Your task to perform on an android device: Play the new Katy Perry video on YouTube Image 0: 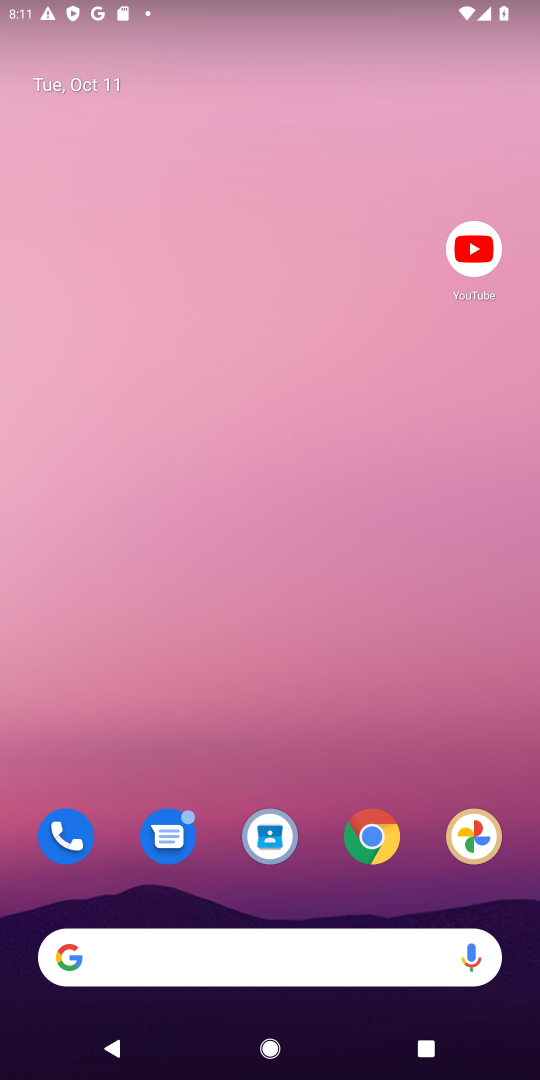
Step 0: click (468, 245)
Your task to perform on an android device: Play the new Katy Perry video on YouTube Image 1: 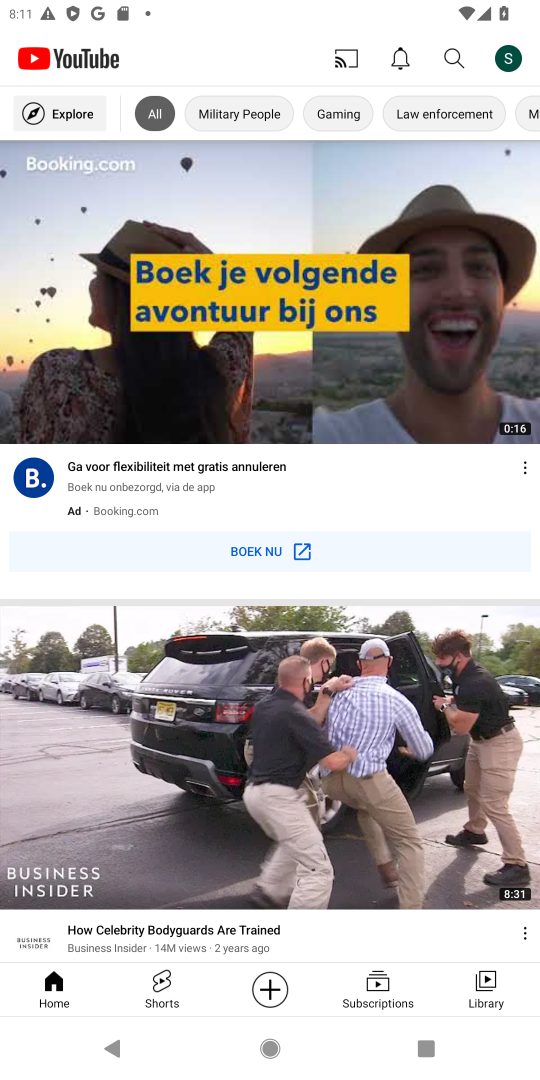
Step 1: click (458, 52)
Your task to perform on an android device: Play the new Katy Perry video on YouTube Image 2: 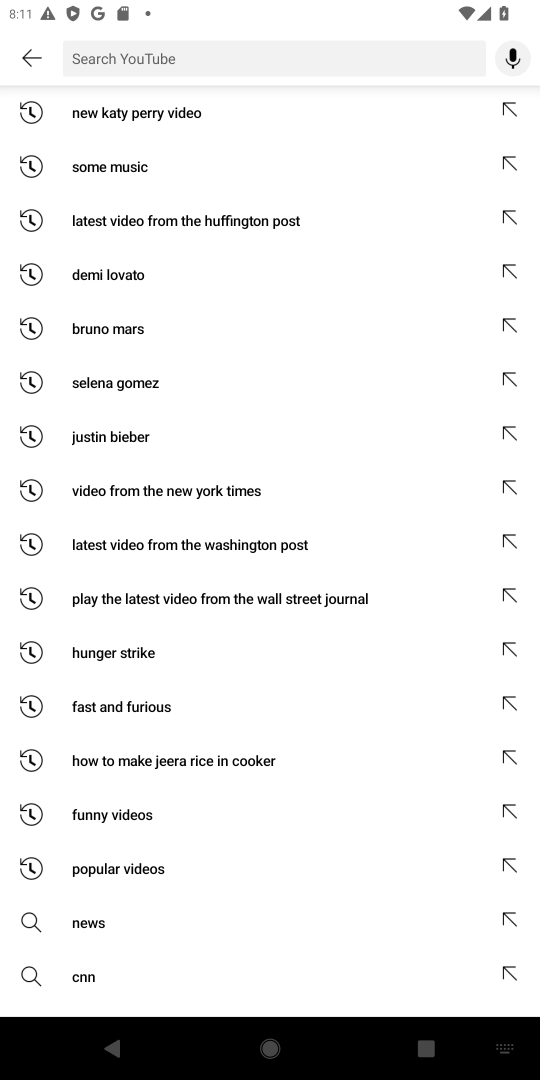
Step 2: type "new Katy Perry video "
Your task to perform on an android device: Play the new Katy Perry video on YouTube Image 3: 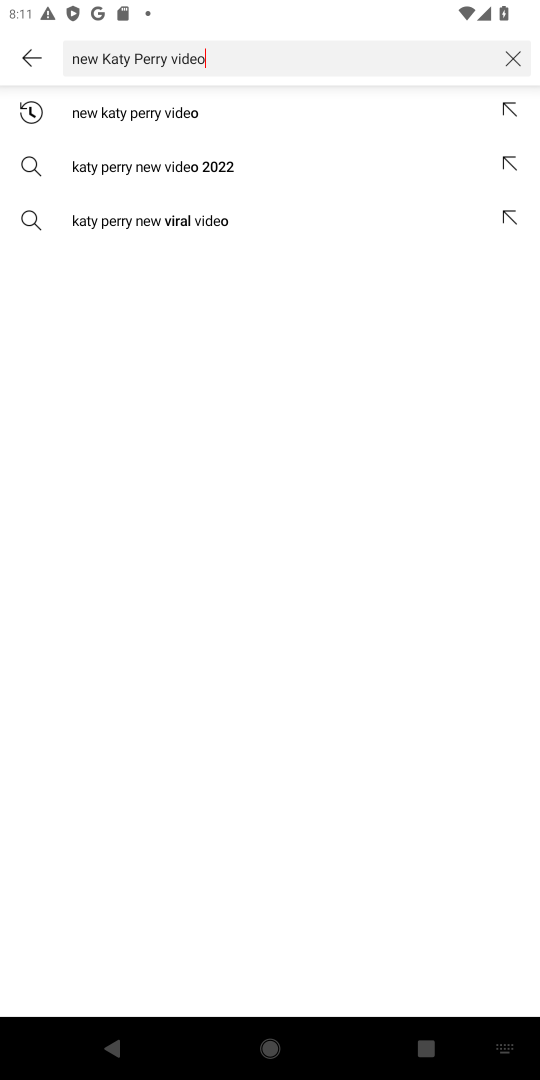
Step 3: press enter
Your task to perform on an android device: Play the new Katy Perry video on YouTube Image 4: 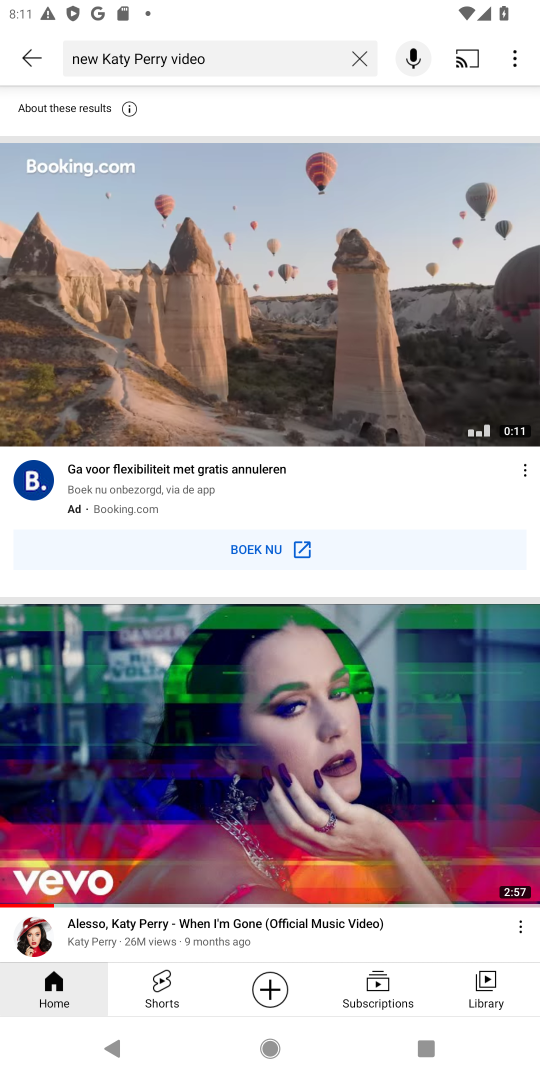
Step 4: drag from (258, 783) to (331, 414)
Your task to perform on an android device: Play the new Katy Perry video on YouTube Image 5: 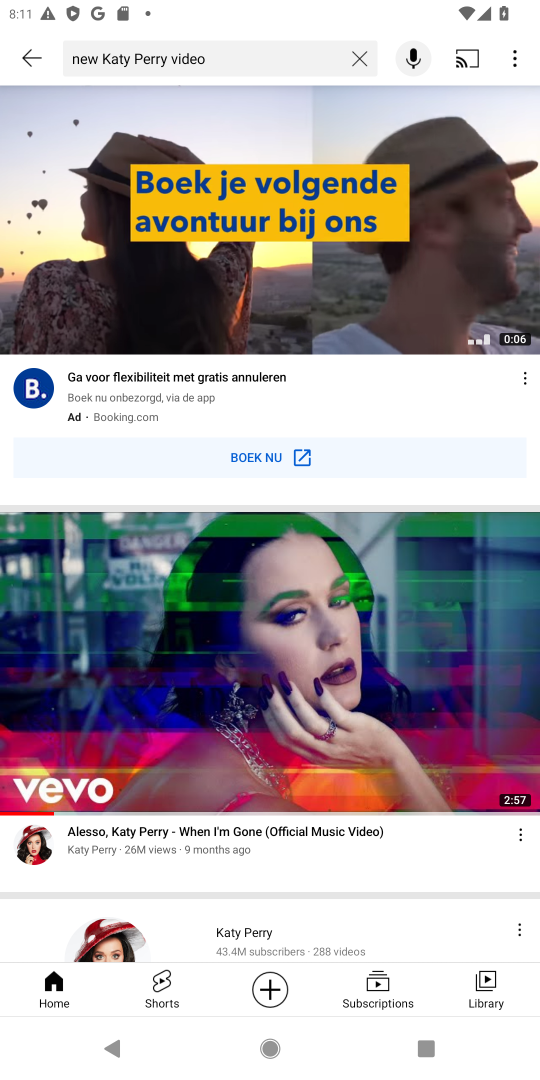
Step 5: click (201, 646)
Your task to perform on an android device: Play the new Katy Perry video on YouTube Image 6: 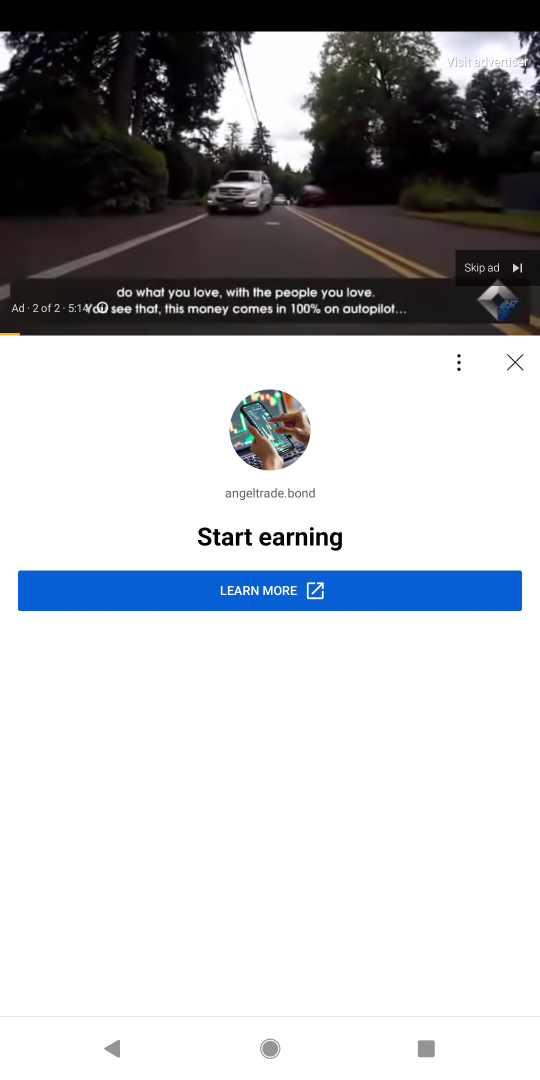
Step 6: click (511, 351)
Your task to perform on an android device: Play the new Katy Perry video on YouTube Image 7: 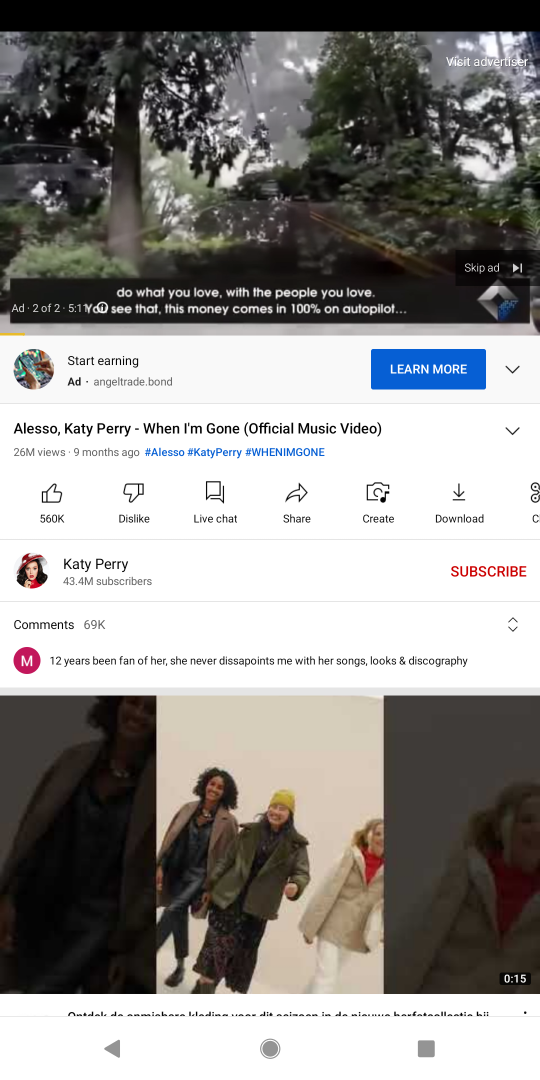
Step 7: click (475, 267)
Your task to perform on an android device: Play the new Katy Perry video on YouTube Image 8: 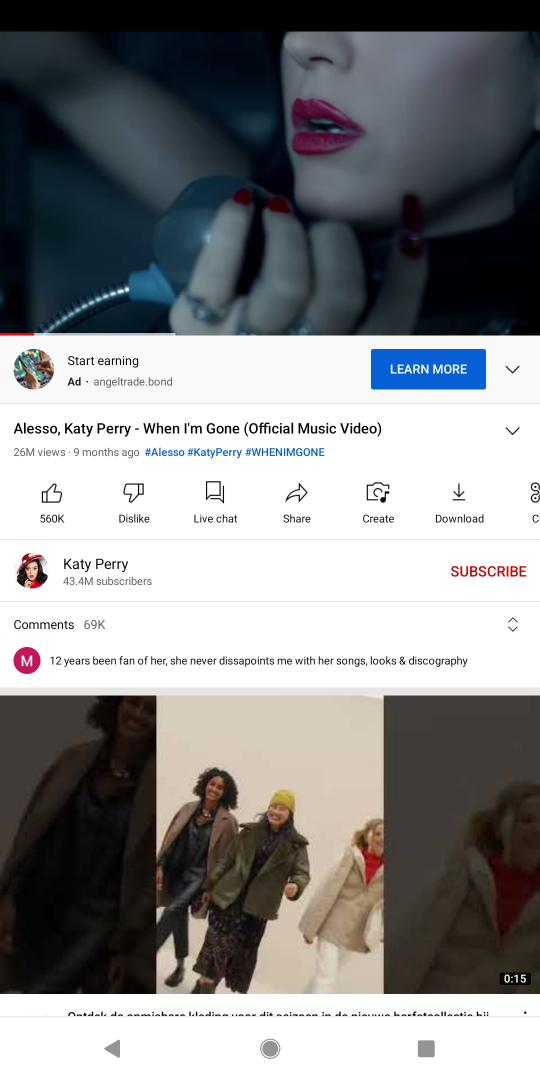
Step 8: click (280, 139)
Your task to perform on an android device: Play the new Katy Perry video on YouTube Image 9: 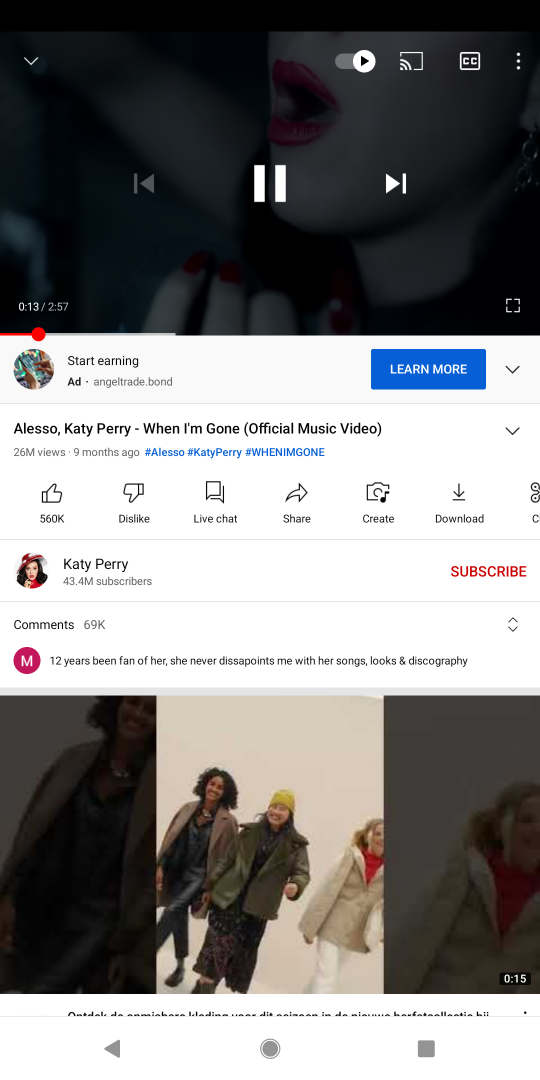
Step 9: click (269, 198)
Your task to perform on an android device: Play the new Katy Perry video on YouTube Image 10: 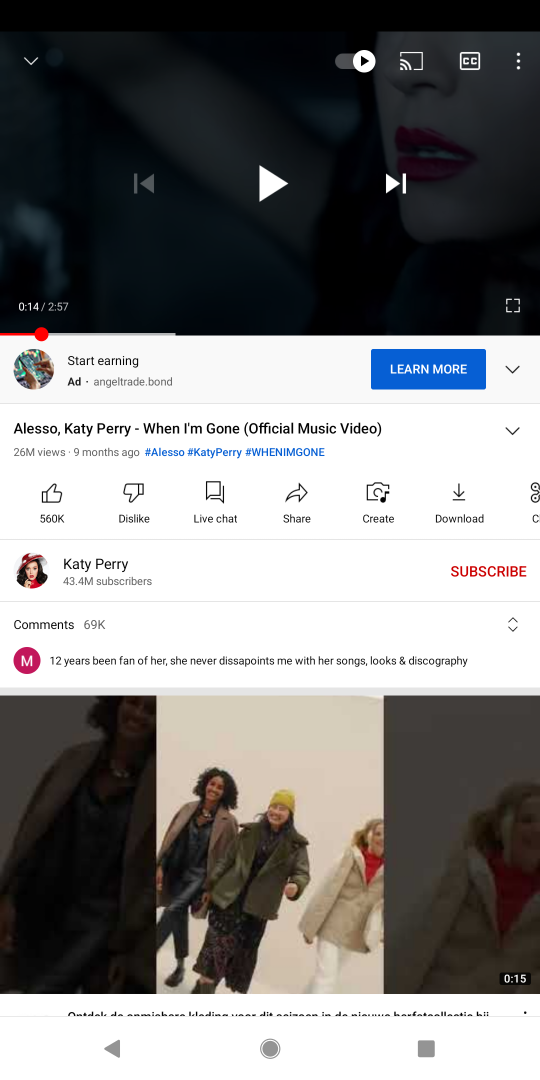
Step 10: task complete